Your task to perform on an android device: Go to Maps Image 0: 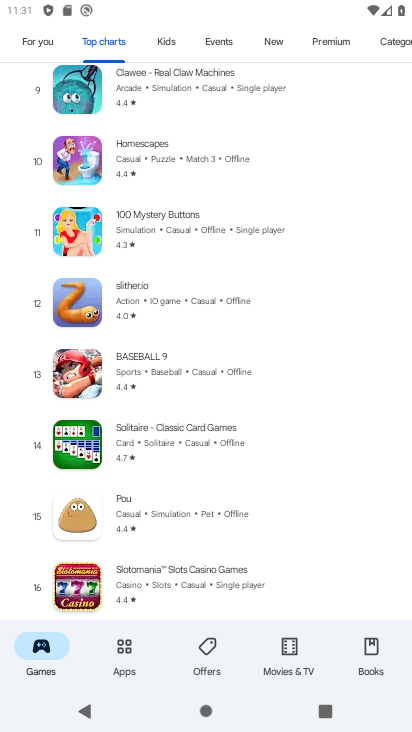
Step 0: press home button
Your task to perform on an android device: Go to Maps Image 1: 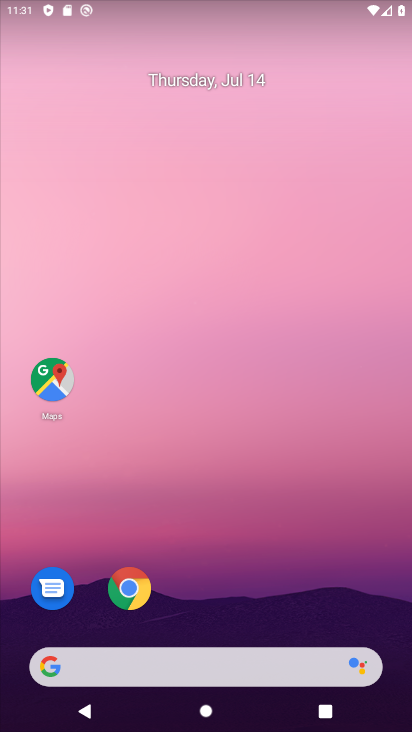
Step 1: click (56, 384)
Your task to perform on an android device: Go to Maps Image 2: 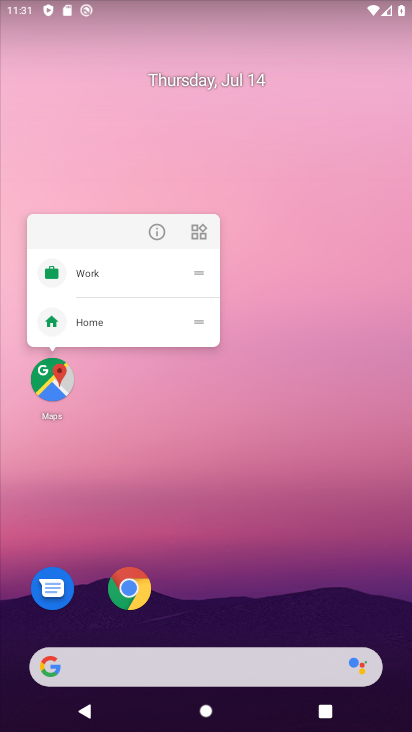
Step 2: click (49, 404)
Your task to perform on an android device: Go to Maps Image 3: 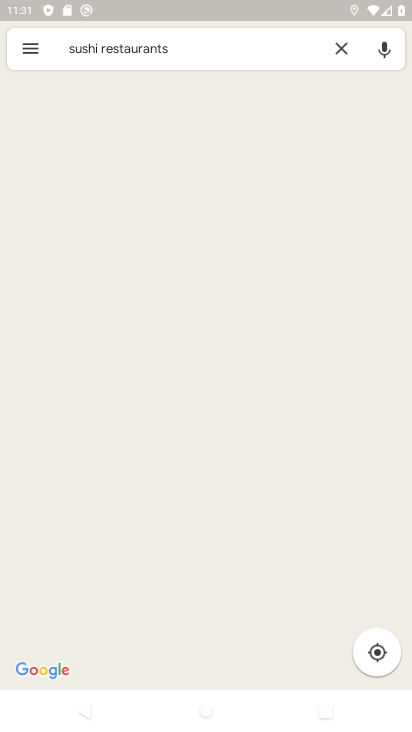
Step 3: task complete